Your task to perform on an android device: Open the stopwatch Image 0: 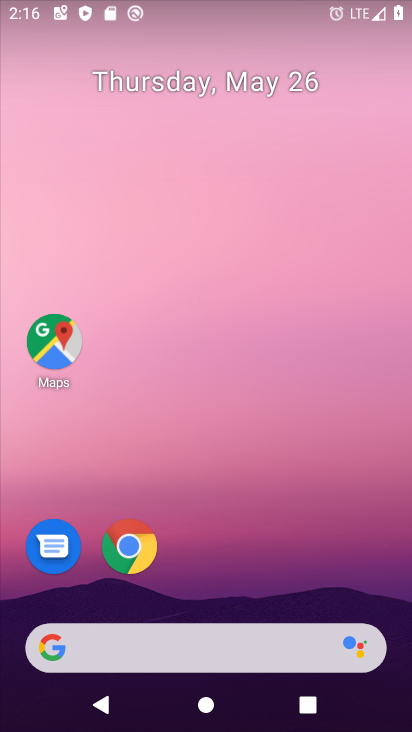
Step 0: drag from (232, 556) to (263, 85)
Your task to perform on an android device: Open the stopwatch Image 1: 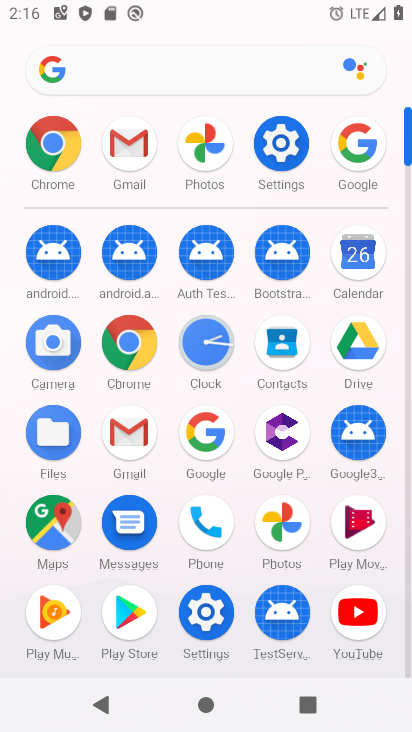
Step 1: click (210, 335)
Your task to perform on an android device: Open the stopwatch Image 2: 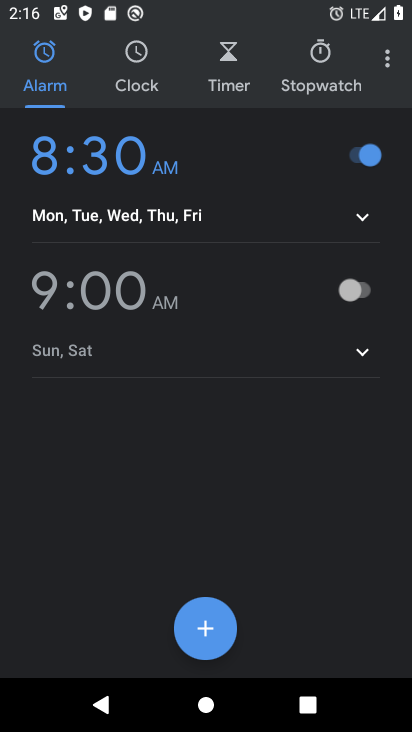
Step 2: click (317, 75)
Your task to perform on an android device: Open the stopwatch Image 3: 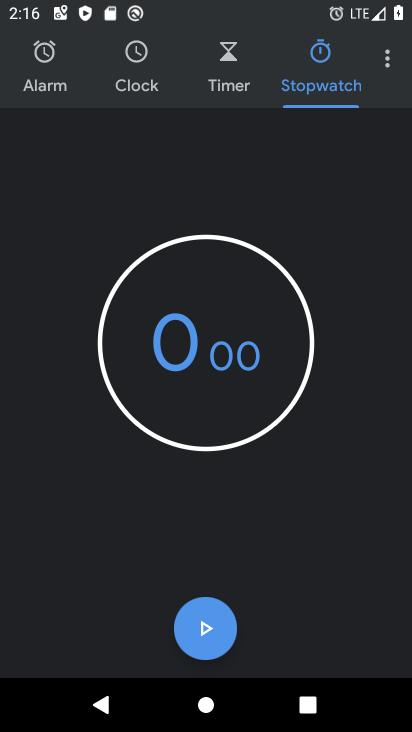
Step 3: click (212, 634)
Your task to perform on an android device: Open the stopwatch Image 4: 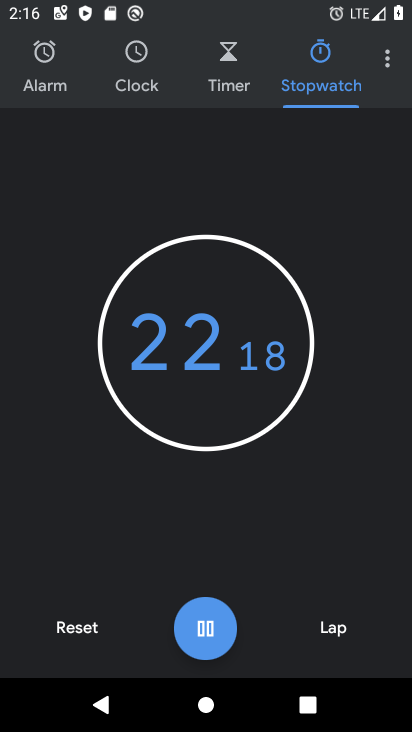
Step 4: task complete